Your task to perform on an android device: Go to Yahoo.com Image 0: 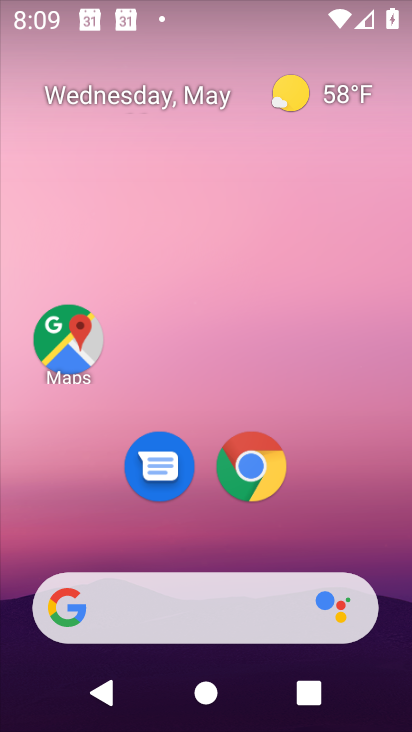
Step 0: press home button
Your task to perform on an android device: Go to Yahoo.com Image 1: 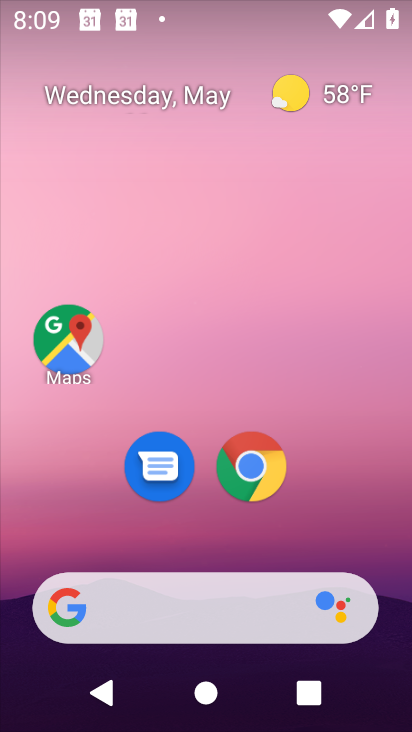
Step 1: click (244, 465)
Your task to perform on an android device: Go to Yahoo.com Image 2: 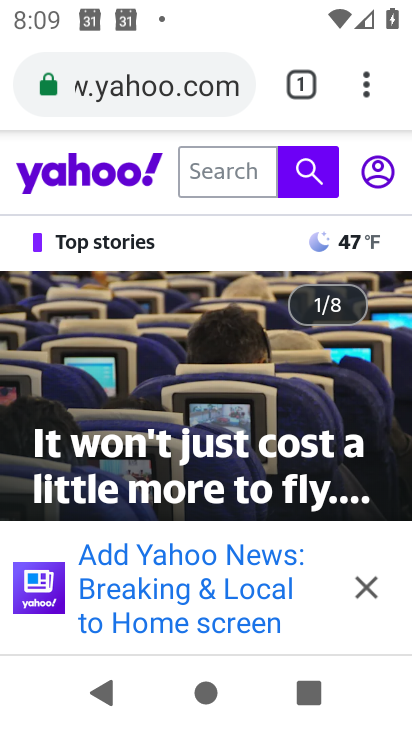
Step 2: click (358, 595)
Your task to perform on an android device: Go to Yahoo.com Image 3: 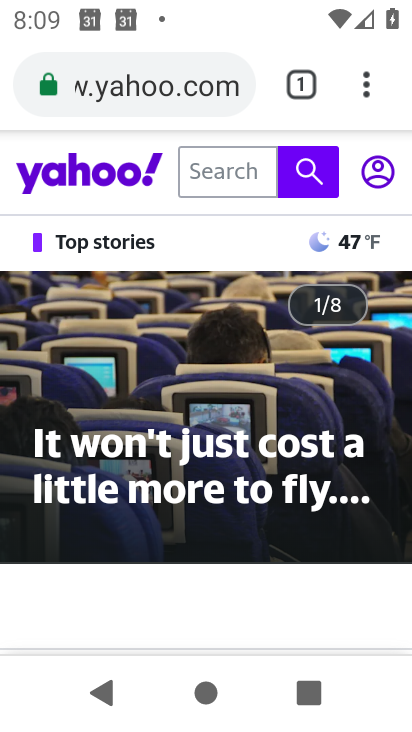
Step 3: task complete